Your task to perform on an android device: What's on the menu at IHOP? Image 0: 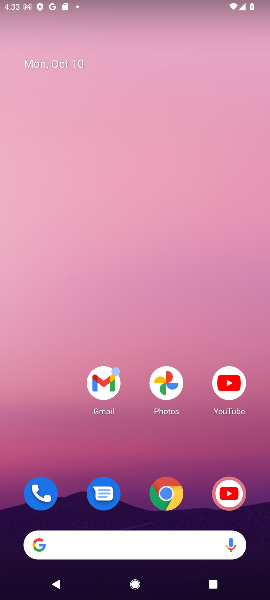
Step 0: click (98, 543)
Your task to perform on an android device: What's on the menu at IHOP? Image 1: 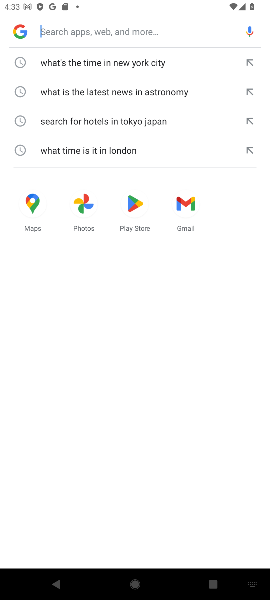
Step 1: type "the menu at IHOP'"
Your task to perform on an android device: What's on the menu at IHOP? Image 2: 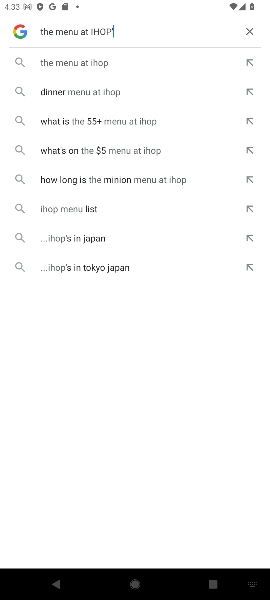
Step 2: click (87, 68)
Your task to perform on an android device: What's on the menu at IHOP? Image 3: 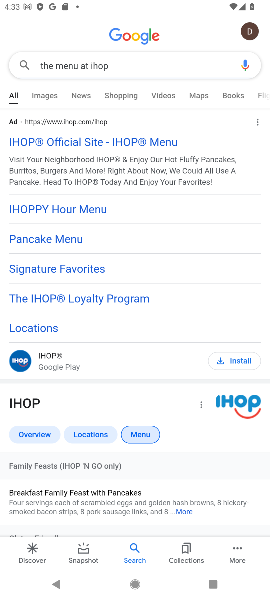
Step 3: task complete